Your task to perform on an android device: Open Google Chrome and click the shortcut for Amazon.com Image 0: 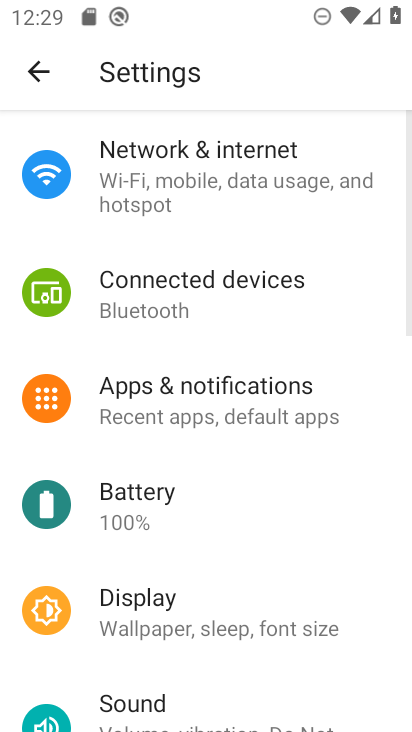
Step 0: press home button
Your task to perform on an android device: Open Google Chrome and click the shortcut for Amazon.com Image 1: 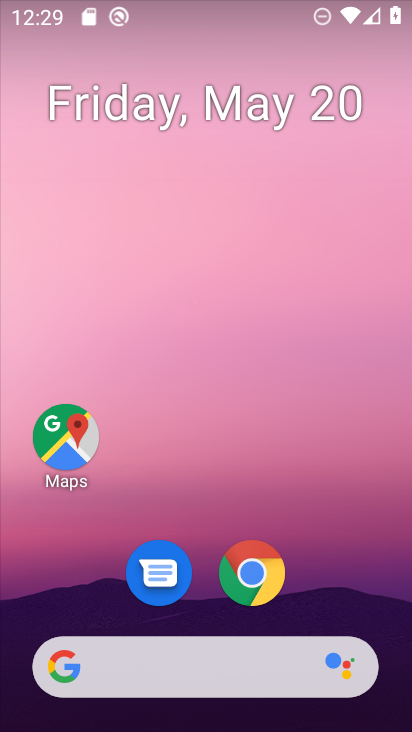
Step 1: click (247, 565)
Your task to perform on an android device: Open Google Chrome and click the shortcut for Amazon.com Image 2: 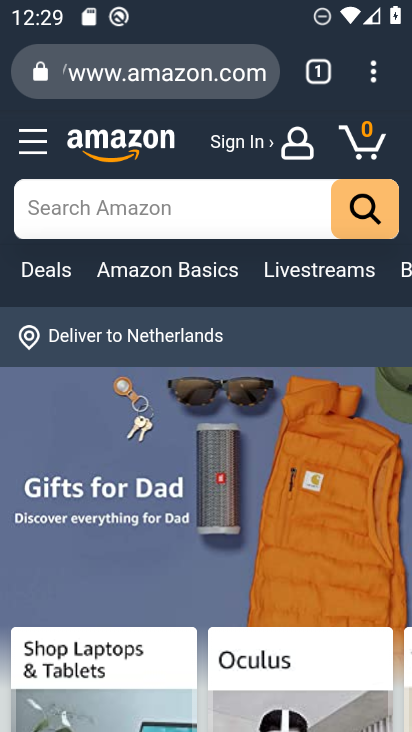
Step 2: click (373, 85)
Your task to perform on an android device: Open Google Chrome and click the shortcut for Amazon.com Image 3: 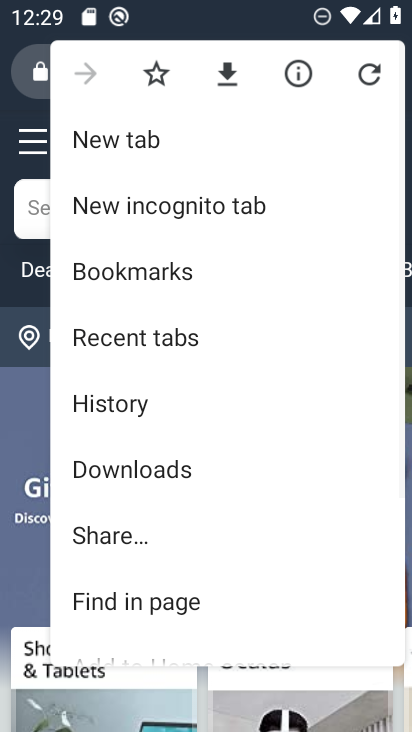
Step 3: click (137, 134)
Your task to perform on an android device: Open Google Chrome and click the shortcut for Amazon.com Image 4: 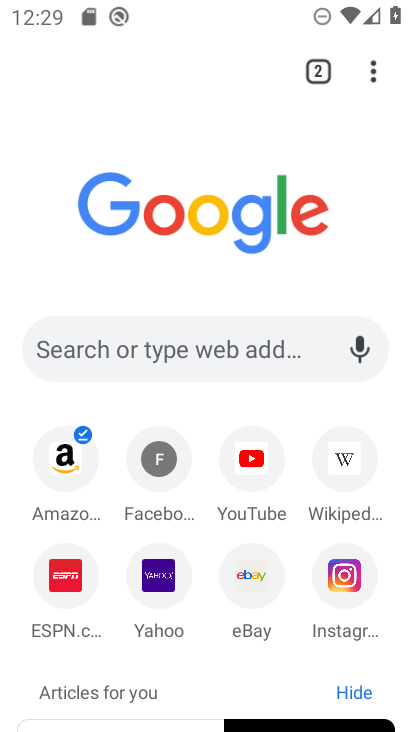
Step 4: click (64, 469)
Your task to perform on an android device: Open Google Chrome and click the shortcut for Amazon.com Image 5: 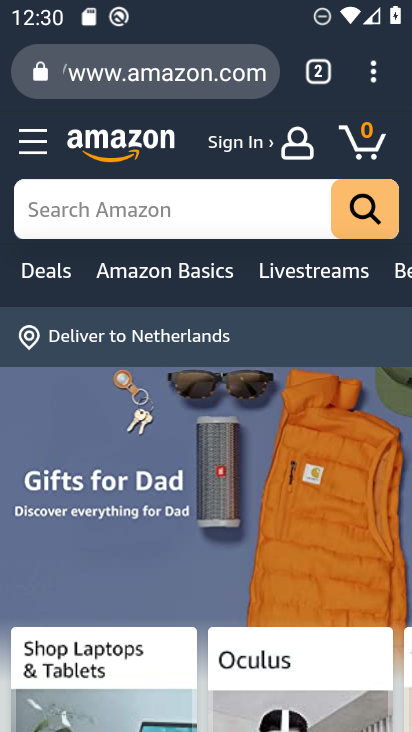
Step 5: task complete